Your task to perform on an android device: change the clock display to analog Image 0: 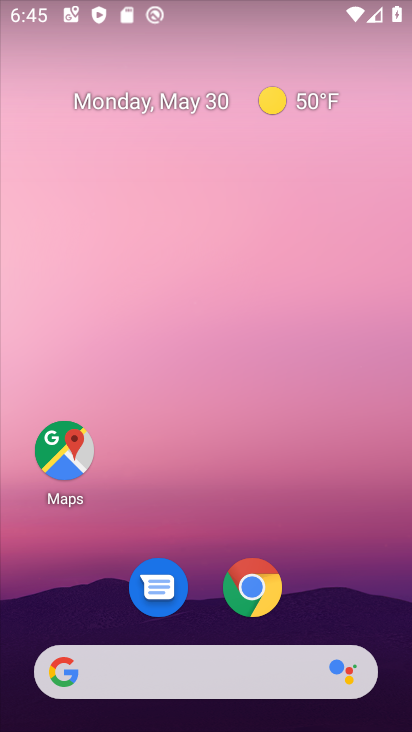
Step 0: drag from (294, 461) to (197, 24)
Your task to perform on an android device: change the clock display to analog Image 1: 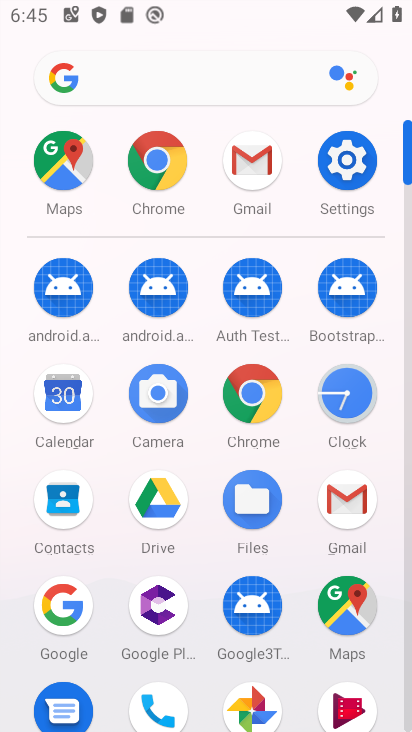
Step 1: drag from (9, 586) to (18, 227)
Your task to perform on an android device: change the clock display to analog Image 2: 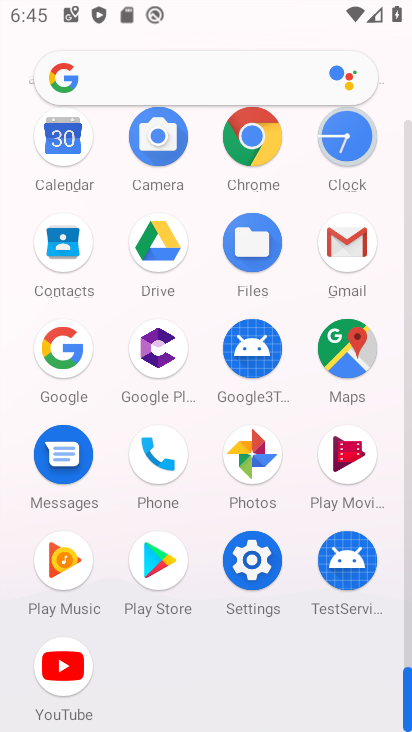
Step 2: click (247, 555)
Your task to perform on an android device: change the clock display to analog Image 3: 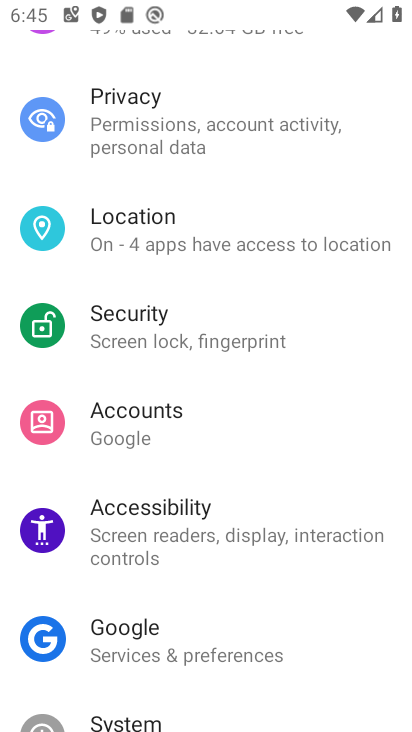
Step 3: press back button
Your task to perform on an android device: change the clock display to analog Image 4: 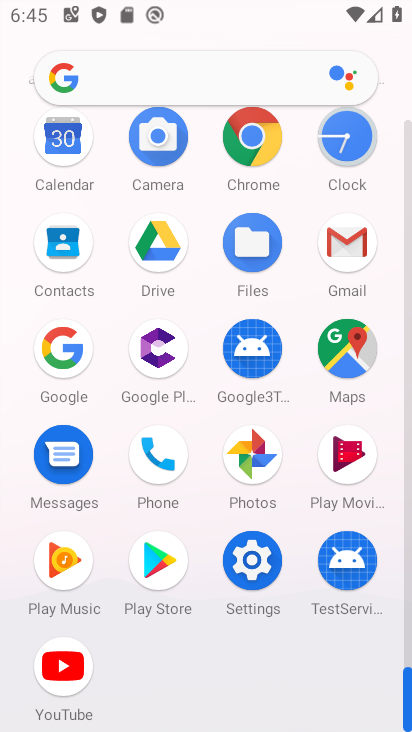
Step 4: click (345, 126)
Your task to perform on an android device: change the clock display to analog Image 5: 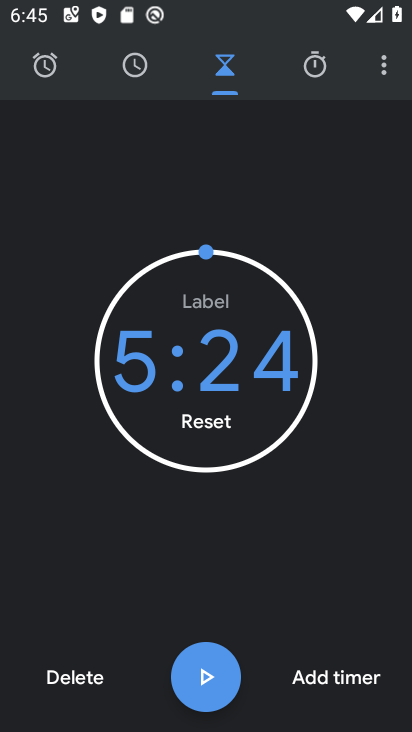
Step 5: task complete